Your task to perform on an android device: Go to battery settings Image 0: 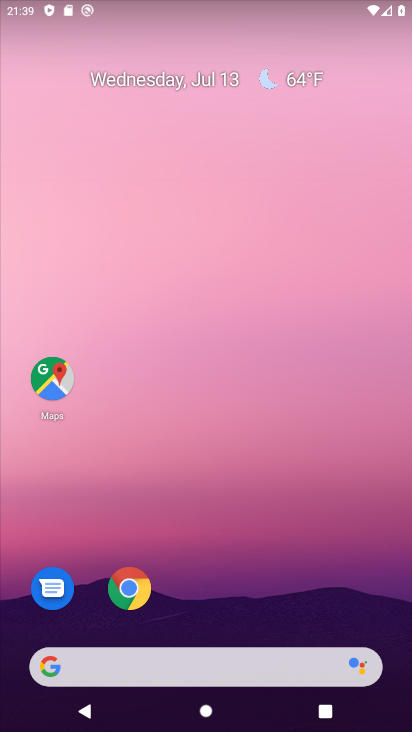
Step 0: drag from (210, 610) to (304, 42)
Your task to perform on an android device: Go to battery settings Image 1: 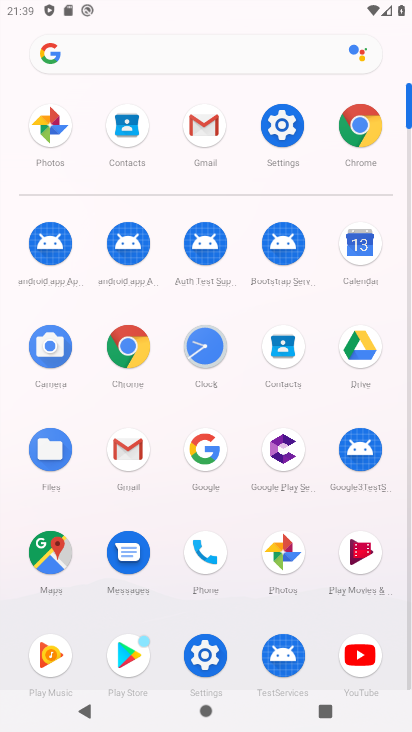
Step 1: click (285, 127)
Your task to perform on an android device: Go to battery settings Image 2: 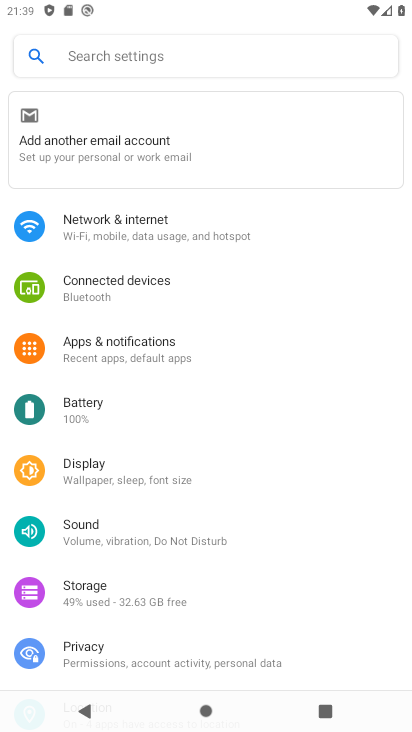
Step 2: click (103, 428)
Your task to perform on an android device: Go to battery settings Image 3: 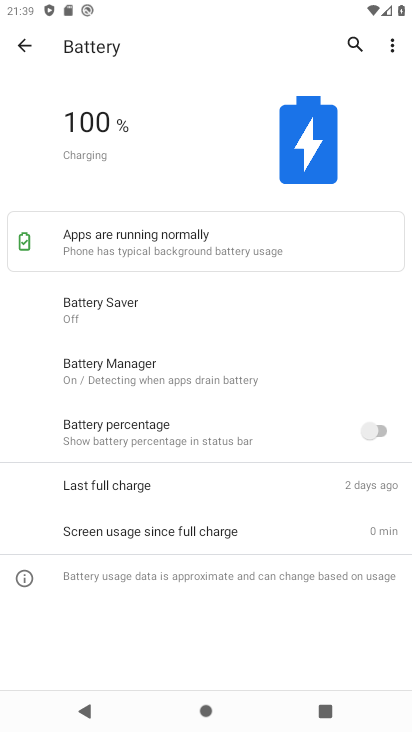
Step 3: task complete